Your task to perform on an android device: open sync settings in chrome Image 0: 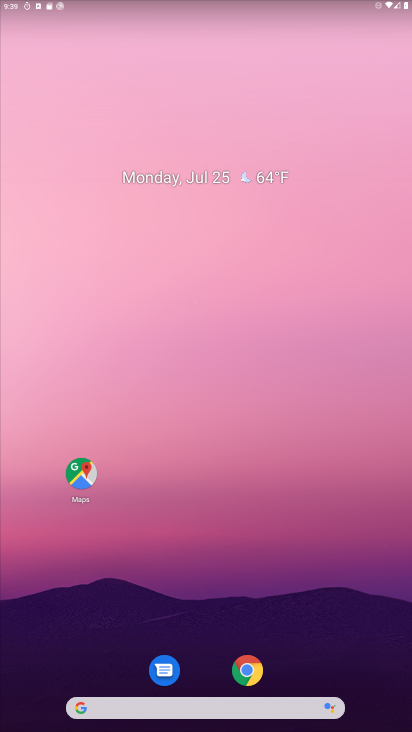
Step 0: drag from (381, 650) to (174, 84)
Your task to perform on an android device: open sync settings in chrome Image 1: 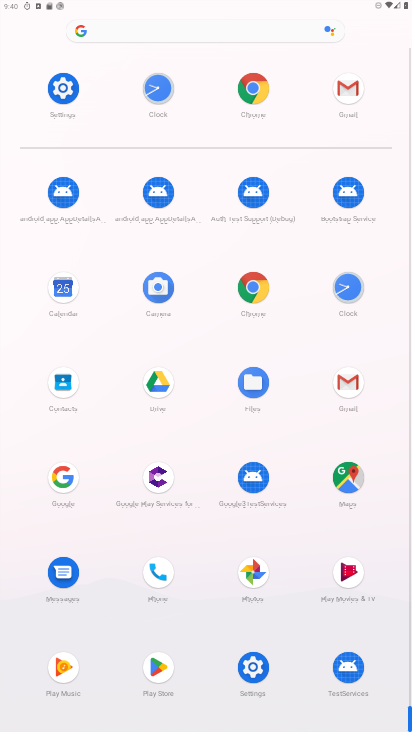
Step 1: click (252, 280)
Your task to perform on an android device: open sync settings in chrome Image 2: 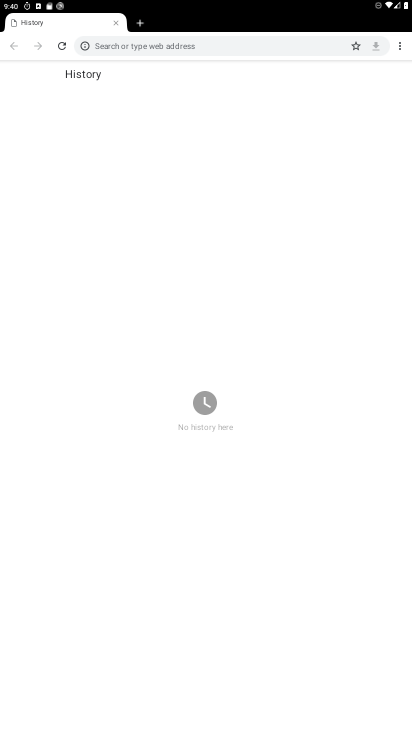
Step 2: click (404, 39)
Your task to perform on an android device: open sync settings in chrome Image 3: 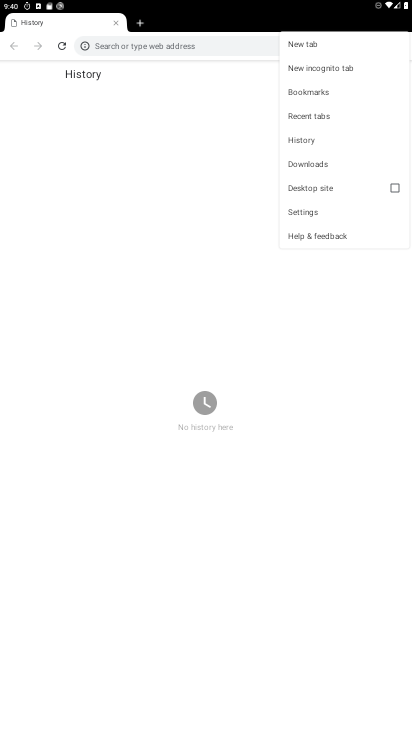
Step 3: click (310, 218)
Your task to perform on an android device: open sync settings in chrome Image 4: 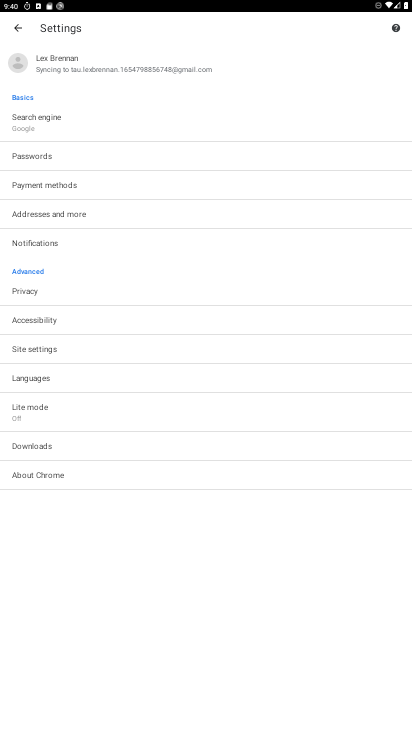
Step 4: click (62, 350)
Your task to perform on an android device: open sync settings in chrome Image 5: 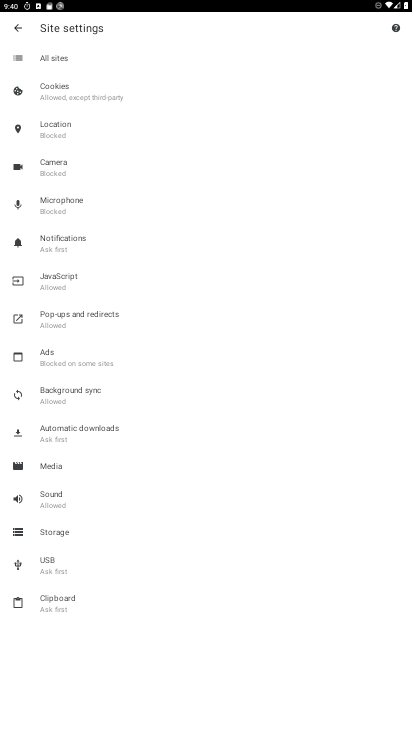
Step 5: click (83, 391)
Your task to perform on an android device: open sync settings in chrome Image 6: 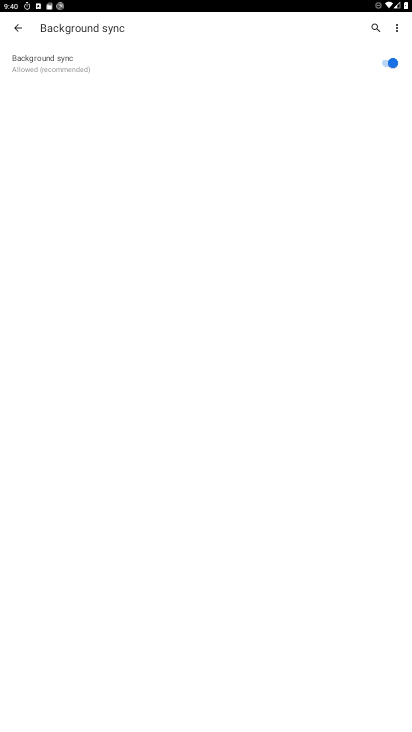
Step 6: task complete